Your task to perform on an android device: Open Google Chrome Image 0: 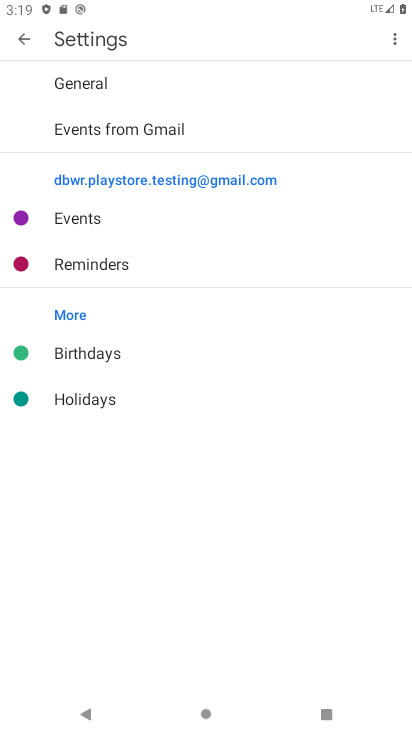
Step 0: press home button
Your task to perform on an android device: Open Google Chrome Image 1: 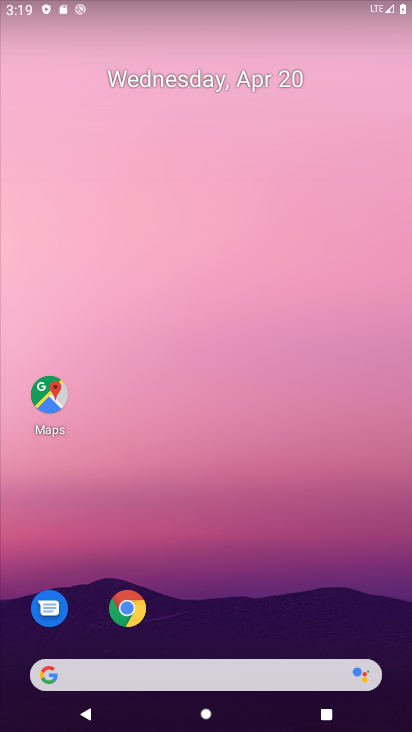
Step 1: click (132, 603)
Your task to perform on an android device: Open Google Chrome Image 2: 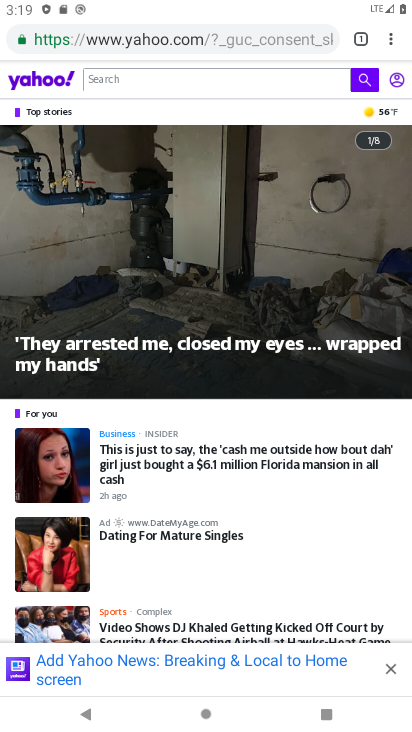
Step 2: task complete